Your task to perform on an android device: Open maps Image 0: 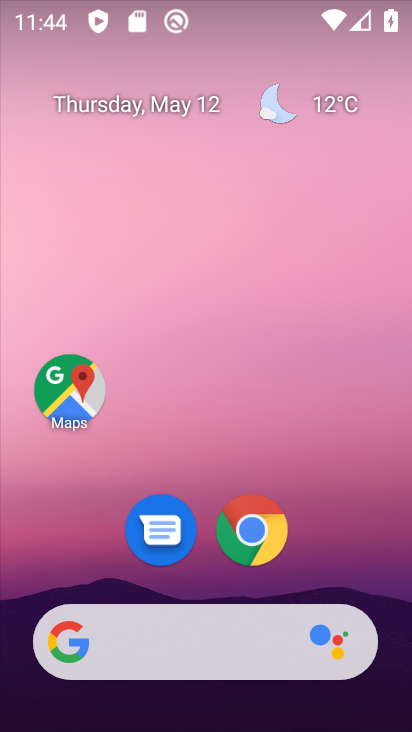
Step 0: click (83, 397)
Your task to perform on an android device: Open maps Image 1: 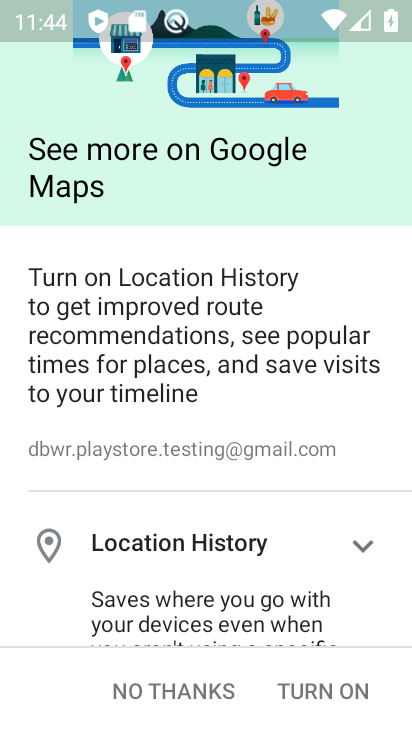
Step 1: task complete